Your task to perform on an android device: set an alarm Image 0: 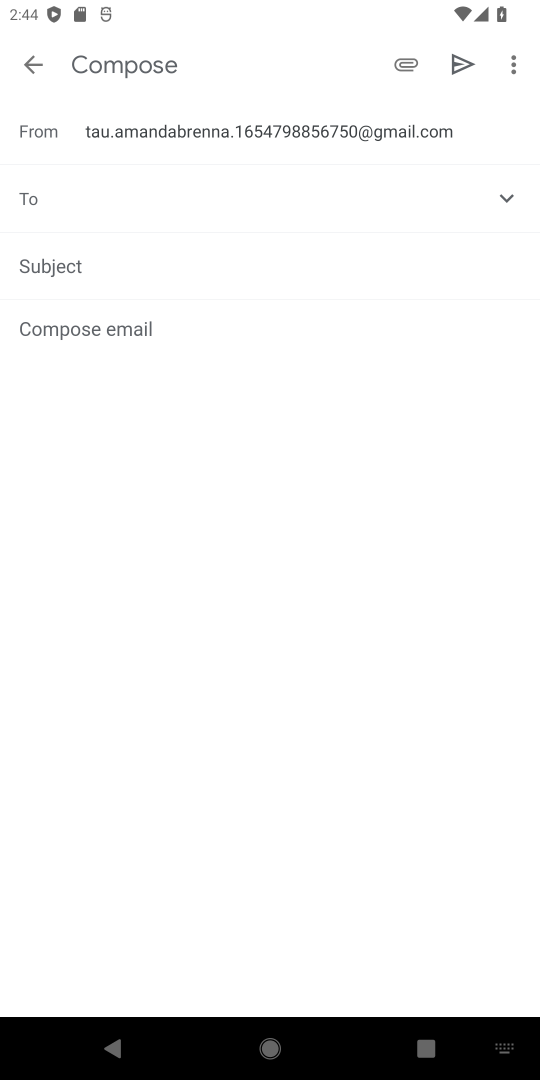
Step 0: click (342, 624)
Your task to perform on an android device: set an alarm Image 1: 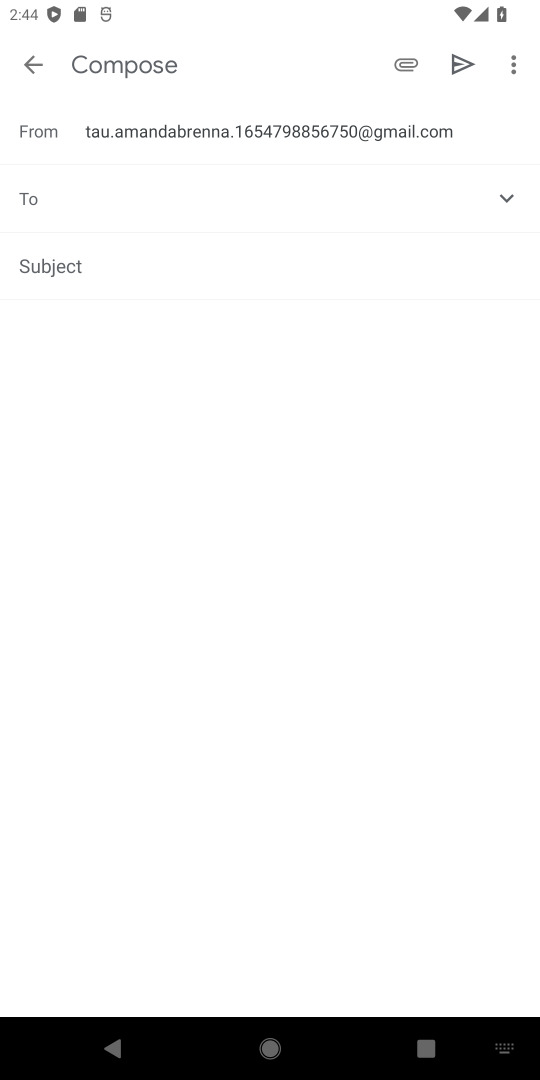
Step 1: press home button
Your task to perform on an android device: set an alarm Image 2: 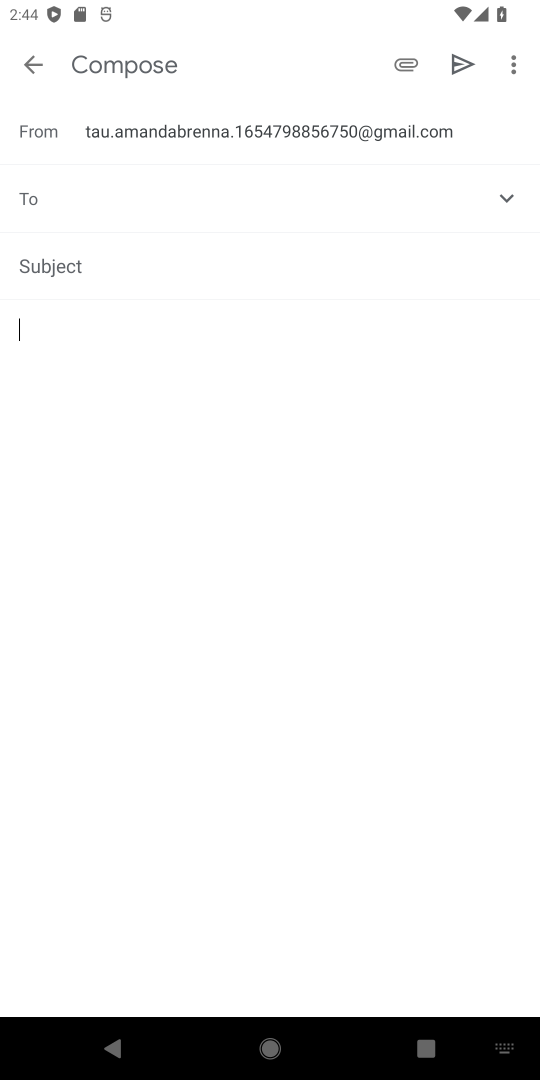
Step 2: press home button
Your task to perform on an android device: set an alarm Image 3: 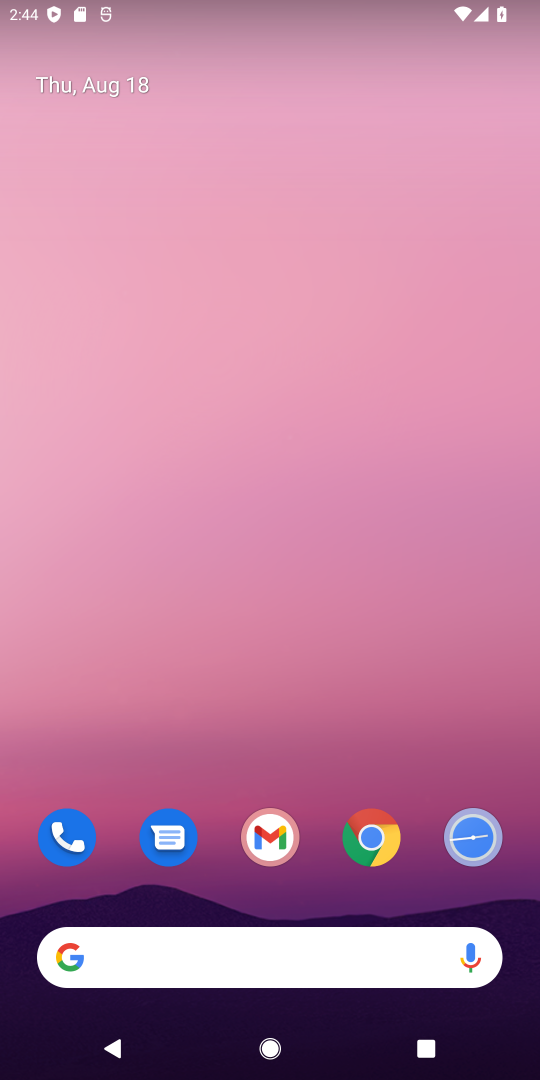
Step 3: drag from (333, 868) to (537, 129)
Your task to perform on an android device: set an alarm Image 4: 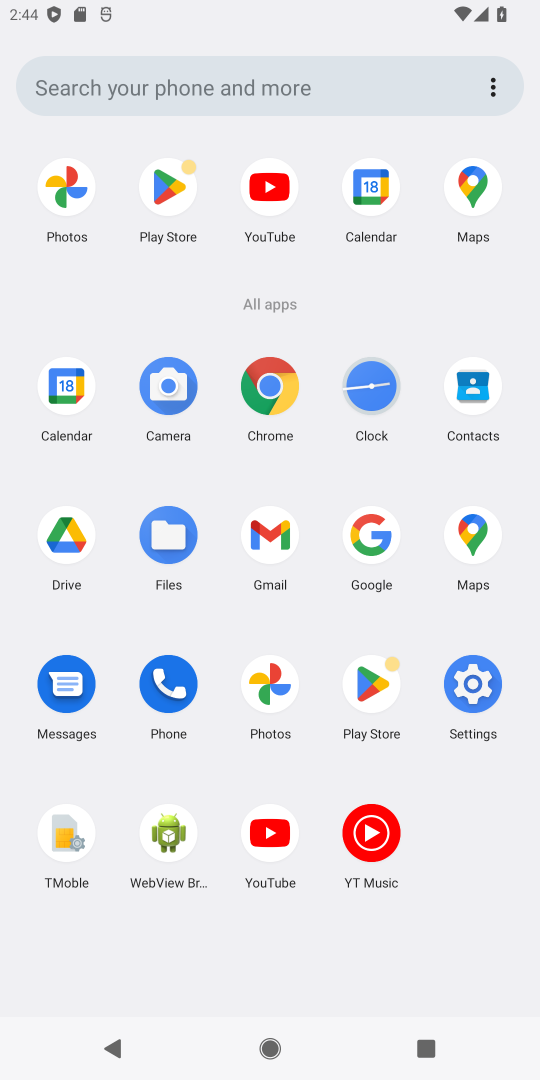
Step 4: click (367, 392)
Your task to perform on an android device: set an alarm Image 5: 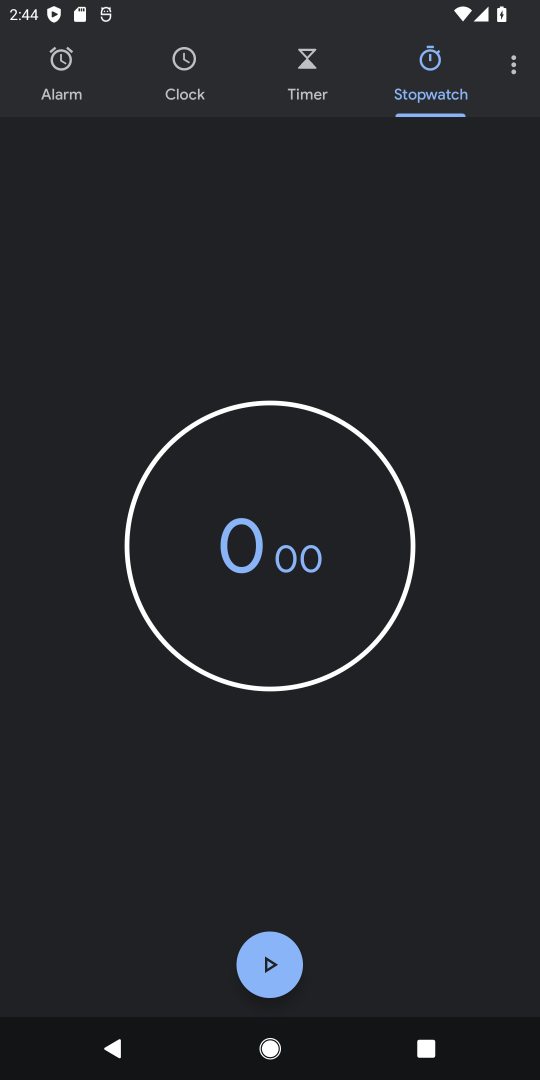
Step 5: click (71, 62)
Your task to perform on an android device: set an alarm Image 6: 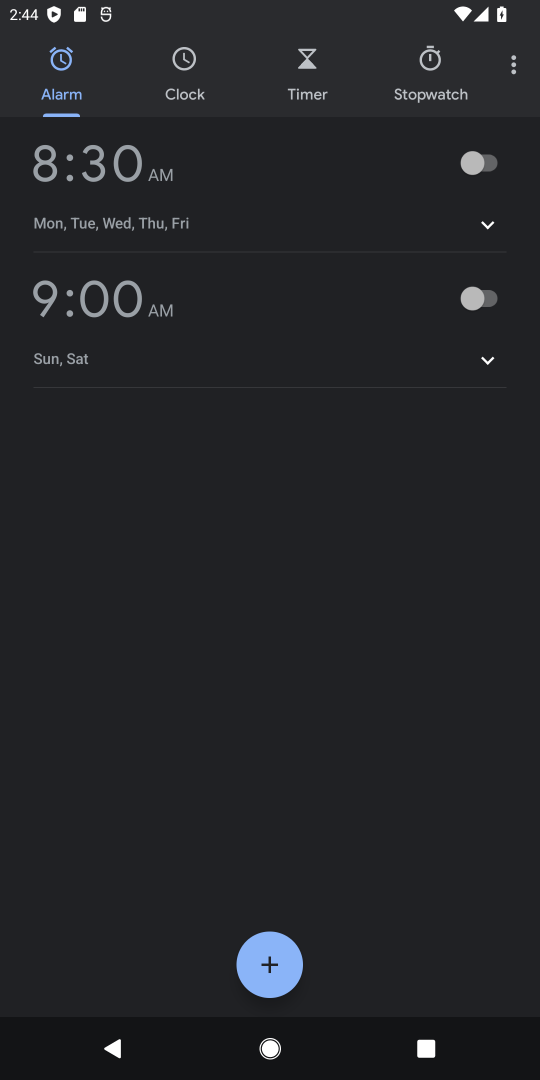
Step 6: click (262, 975)
Your task to perform on an android device: set an alarm Image 7: 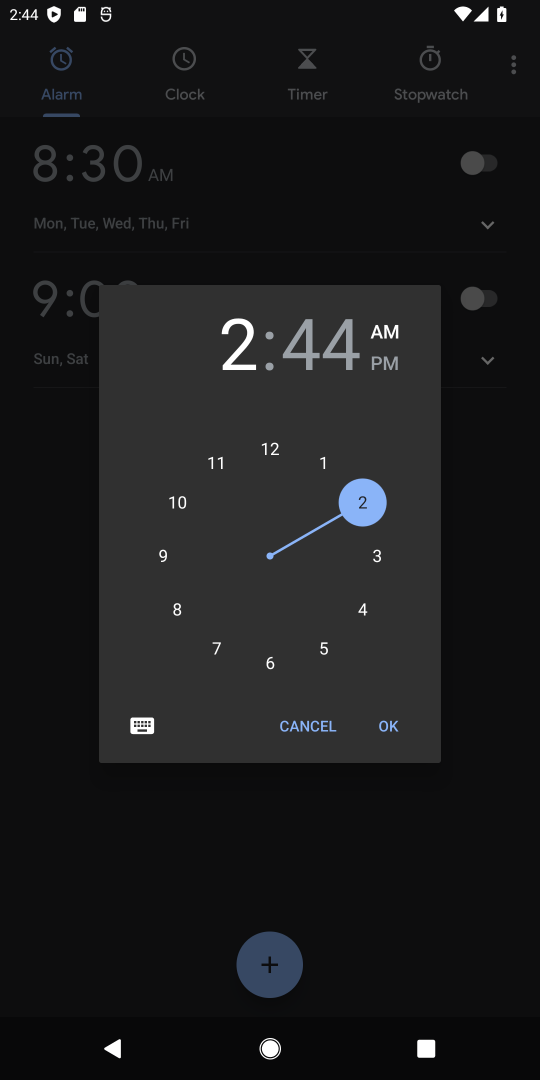
Step 7: click (388, 724)
Your task to perform on an android device: set an alarm Image 8: 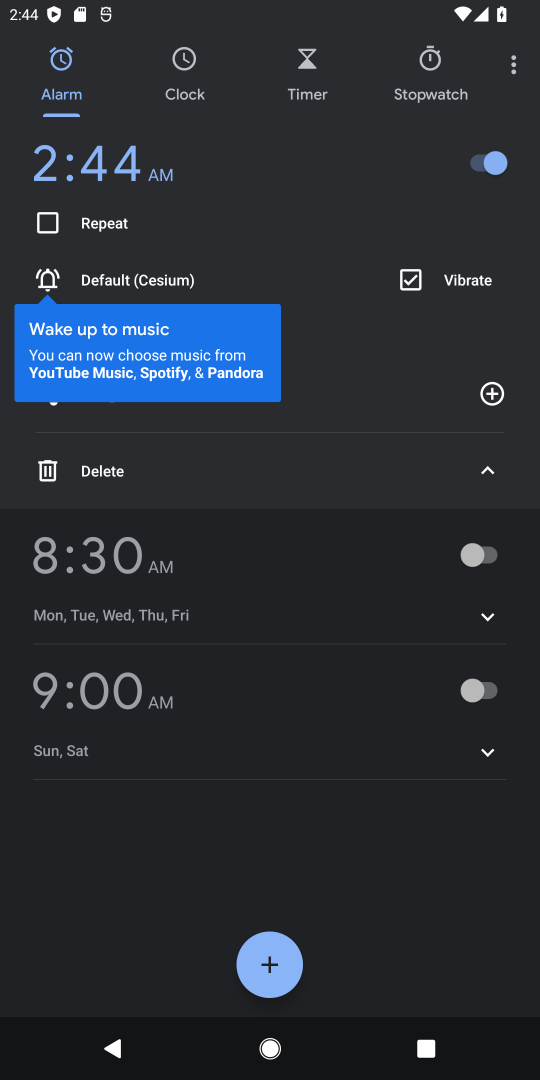
Step 8: task complete